Your task to perform on an android device: turn on the 24-hour format for clock Image 0: 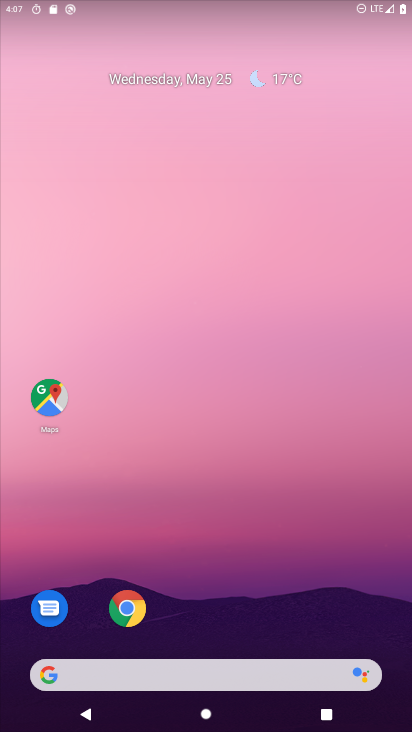
Step 0: drag from (296, 563) to (187, 1)
Your task to perform on an android device: turn on the 24-hour format for clock Image 1: 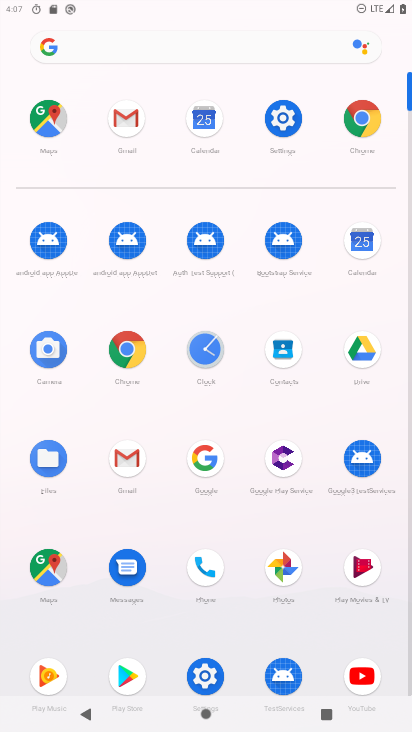
Step 1: click (203, 341)
Your task to perform on an android device: turn on the 24-hour format for clock Image 2: 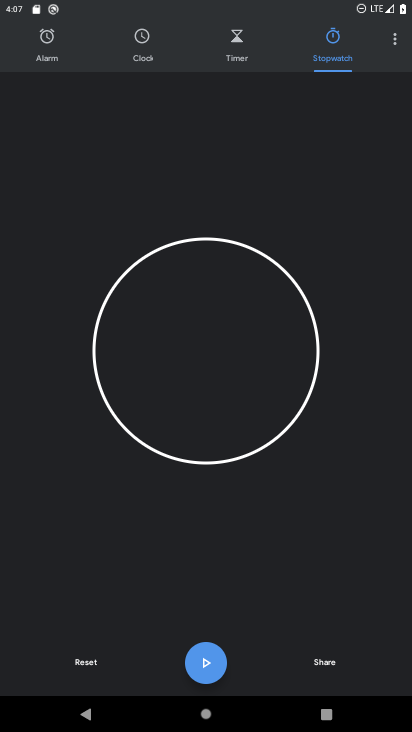
Step 2: click (394, 45)
Your task to perform on an android device: turn on the 24-hour format for clock Image 3: 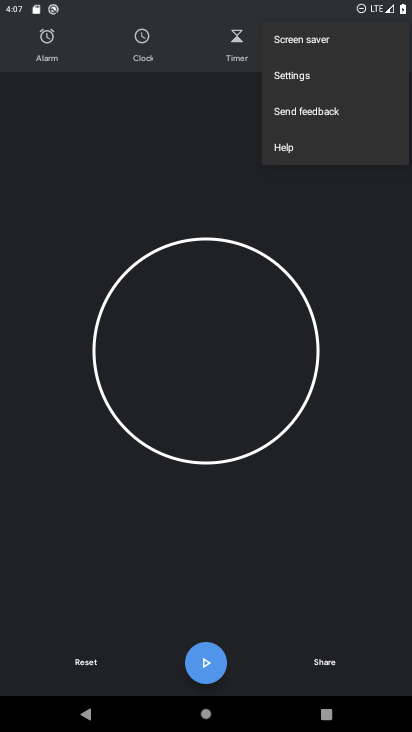
Step 3: click (312, 79)
Your task to perform on an android device: turn on the 24-hour format for clock Image 4: 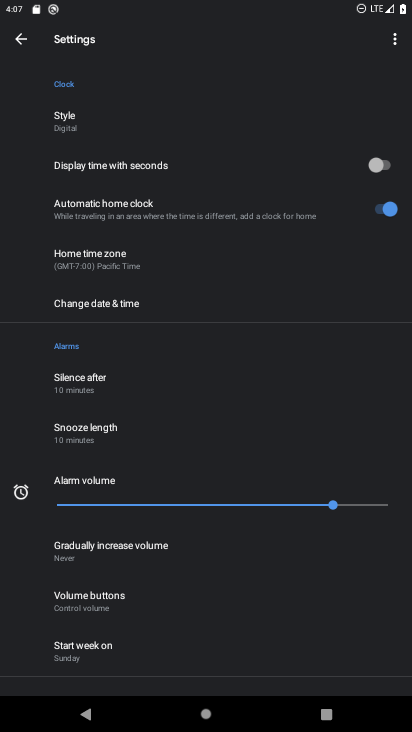
Step 4: click (143, 314)
Your task to perform on an android device: turn on the 24-hour format for clock Image 5: 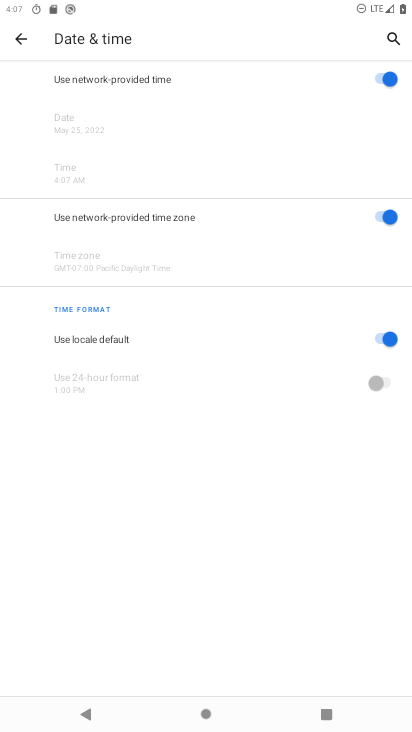
Step 5: click (264, 330)
Your task to perform on an android device: turn on the 24-hour format for clock Image 6: 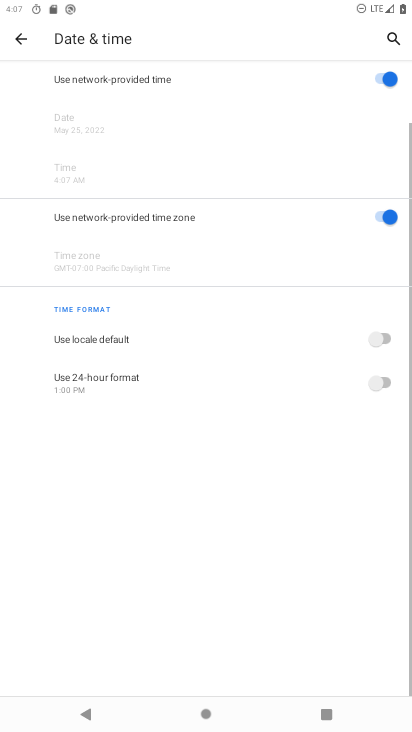
Step 6: click (299, 367)
Your task to perform on an android device: turn on the 24-hour format for clock Image 7: 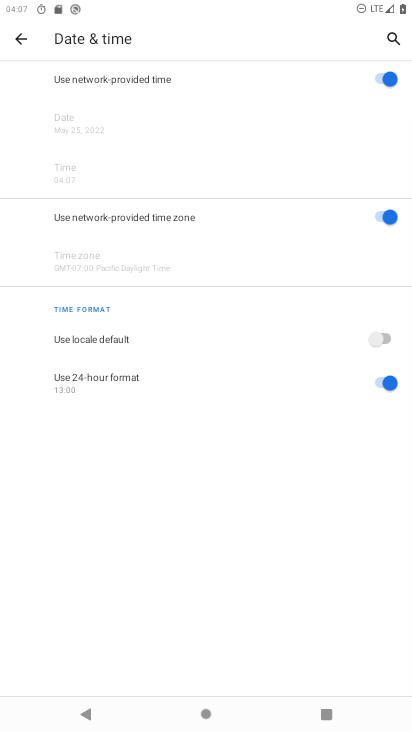
Step 7: task complete